Your task to perform on an android device: Do I have any events tomorrow? Image 0: 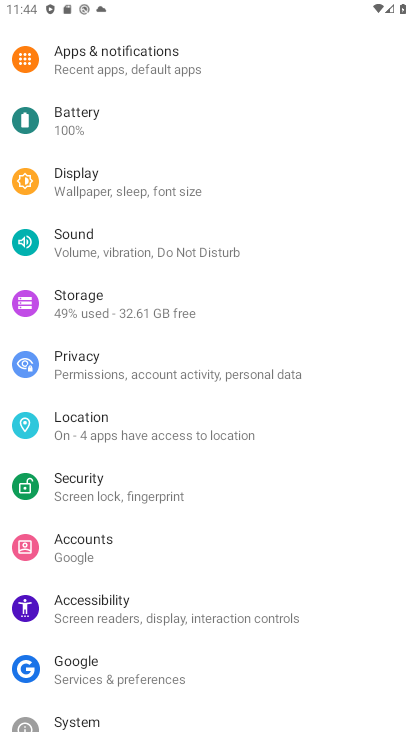
Step 0: press home button
Your task to perform on an android device: Do I have any events tomorrow? Image 1: 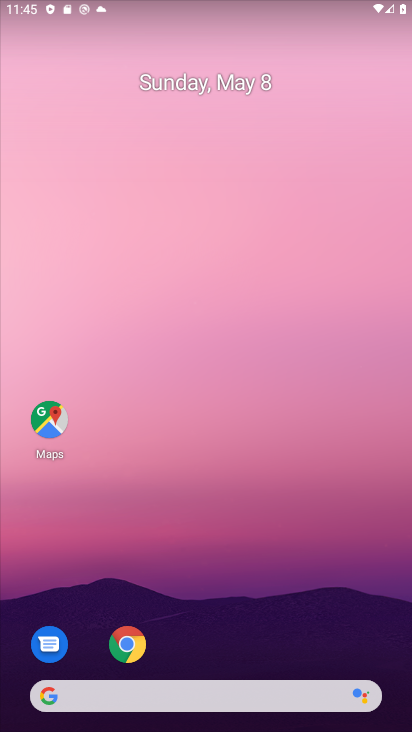
Step 1: drag from (227, 635) to (238, 195)
Your task to perform on an android device: Do I have any events tomorrow? Image 2: 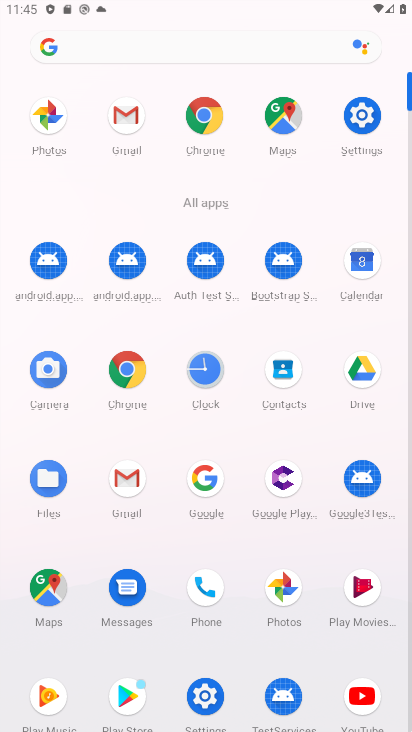
Step 2: click (363, 256)
Your task to perform on an android device: Do I have any events tomorrow? Image 3: 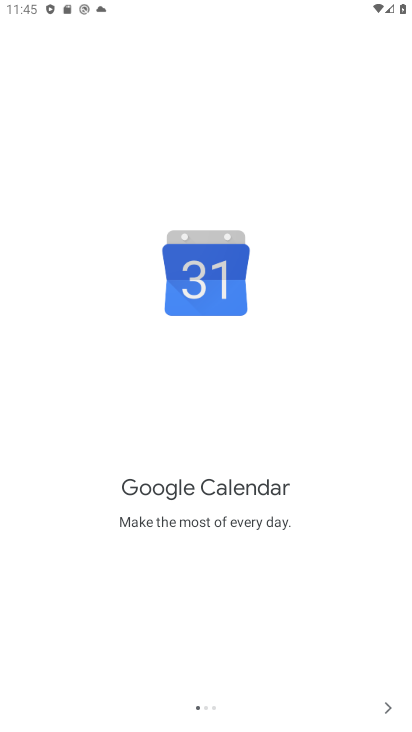
Step 3: click (385, 712)
Your task to perform on an android device: Do I have any events tomorrow? Image 4: 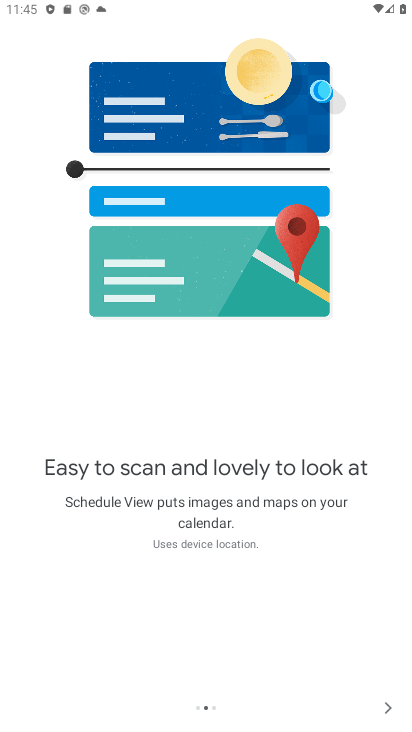
Step 4: click (385, 712)
Your task to perform on an android device: Do I have any events tomorrow? Image 5: 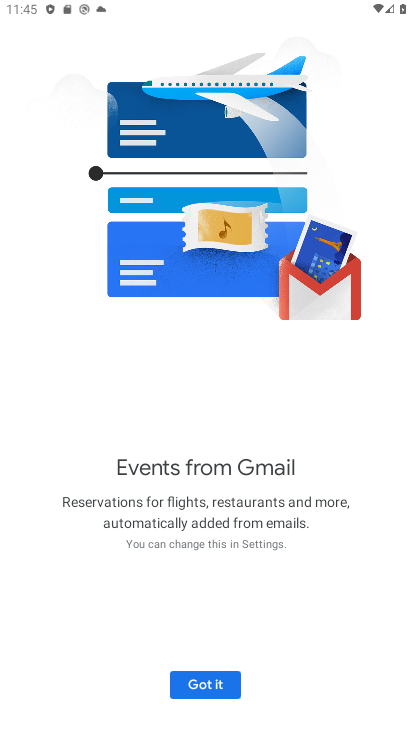
Step 5: click (385, 712)
Your task to perform on an android device: Do I have any events tomorrow? Image 6: 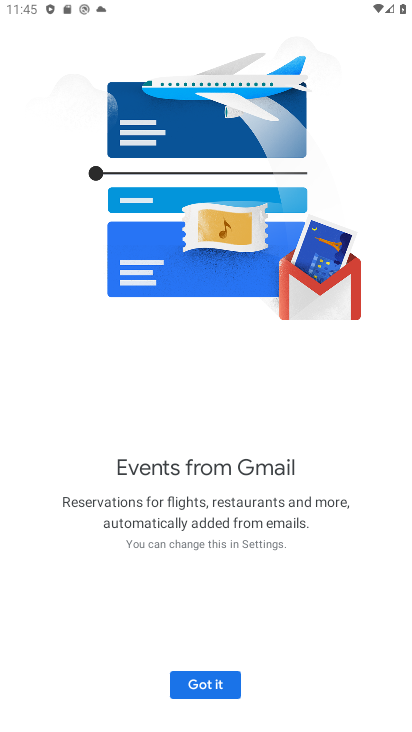
Step 6: click (217, 692)
Your task to perform on an android device: Do I have any events tomorrow? Image 7: 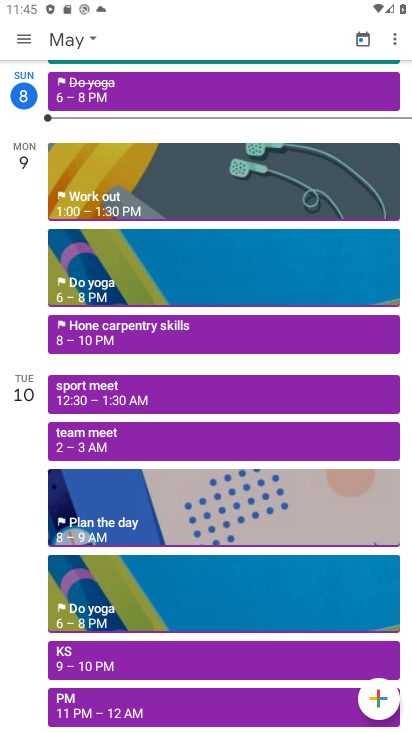
Step 7: click (26, 43)
Your task to perform on an android device: Do I have any events tomorrow? Image 8: 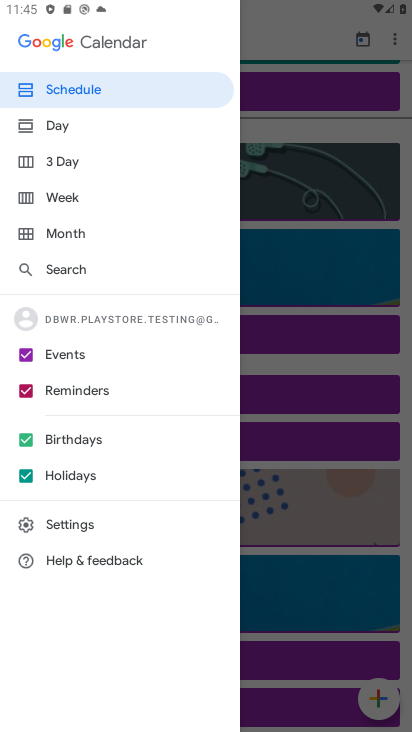
Step 8: click (53, 122)
Your task to perform on an android device: Do I have any events tomorrow? Image 9: 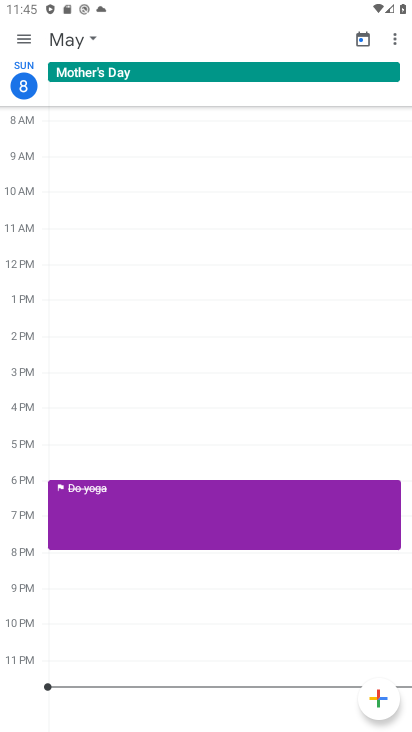
Step 9: click (80, 32)
Your task to perform on an android device: Do I have any events tomorrow? Image 10: 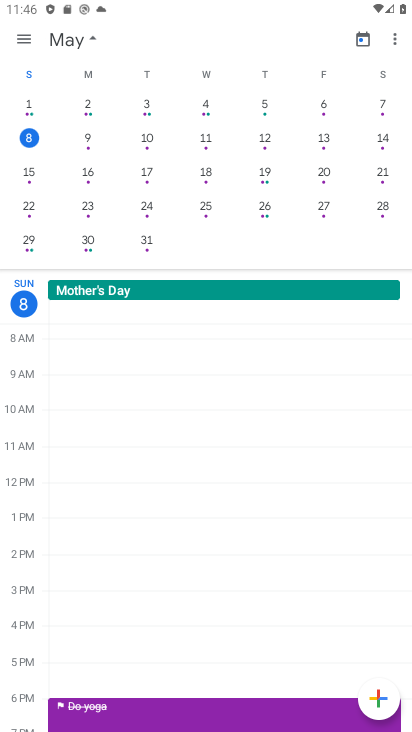
Step 10: click (84, 144)
Your task to perform on an android device: Do I have any events tomorrow? Image 11: 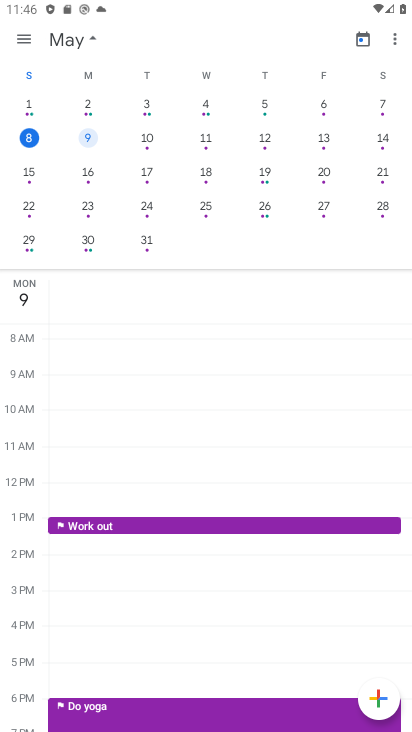
Step 11: task complete